Your task to perform on an android device: Open ESPN.com Image 0: 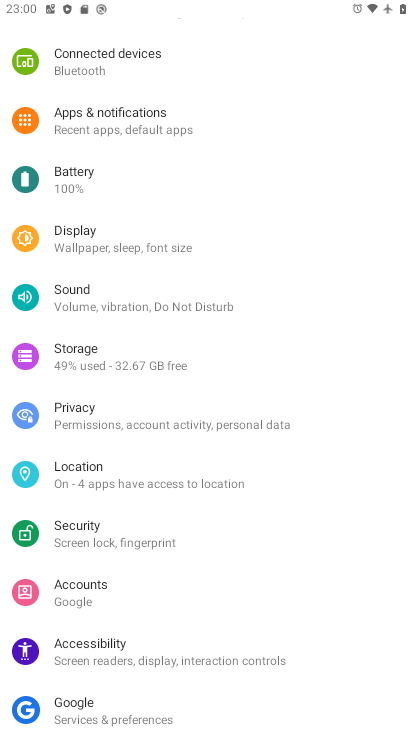
Step 0: press home button
Your task to perform on an android device: Open ESPN.com Image 1: 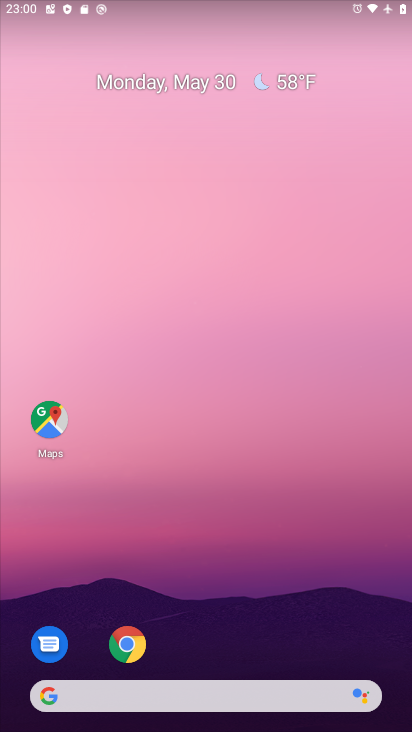
Step 1: click (131, 648)
Your task to perform on an android device: Open ESPN.com Image 2: 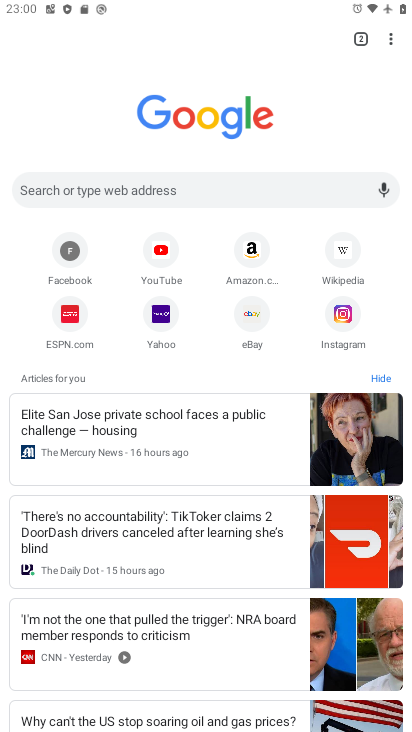
Step 2: click (131, 184)
Your task to perform on an android device: Open ESPN.com Image 3: 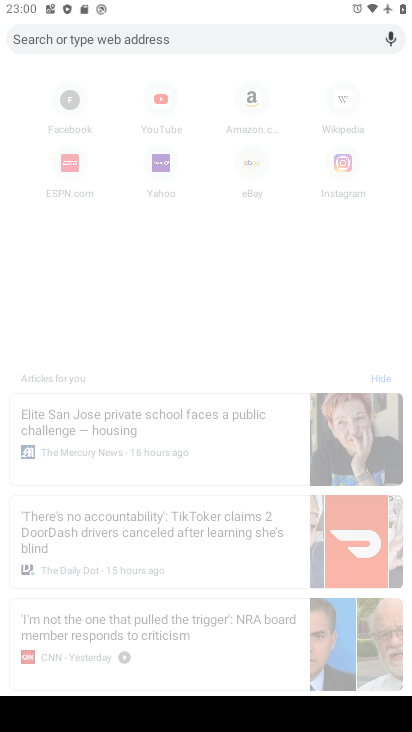
Step 3: type "espn.com"
Your task to perform on an android device: Open ESPN.com Image 4: 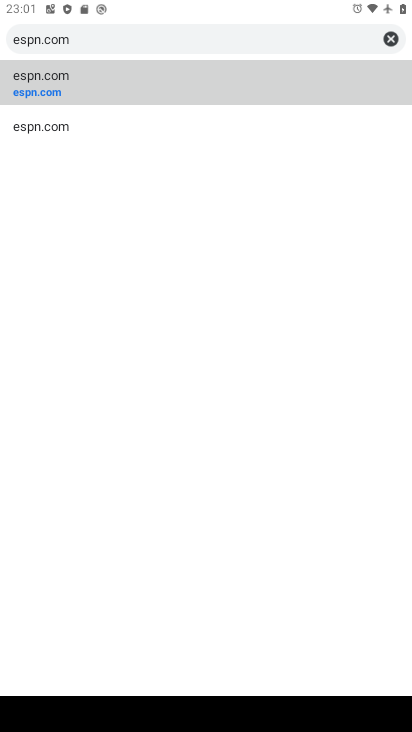
Step 4: click (38, 76)
Your task to perform on an android device: Open ESPN.com Image 5: 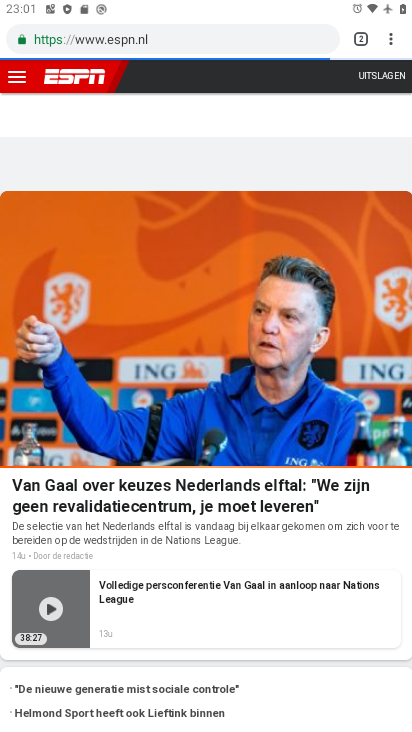
Step 5: task complete